Your task to perform on an android device: change the clock style Image 0: 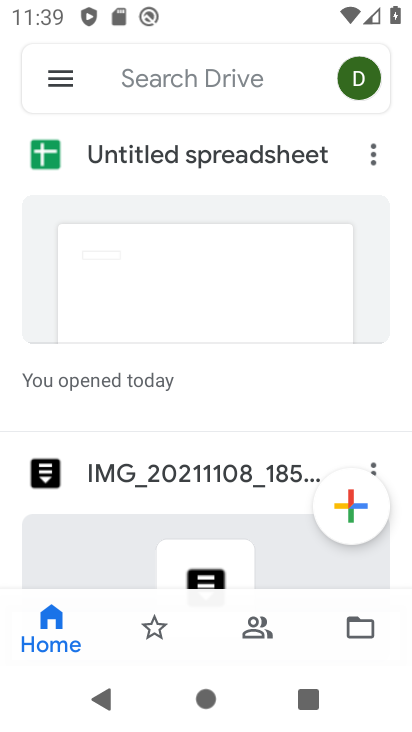
Step 0: press home button
Your task to perform on an android device: change the clock style Image 1: 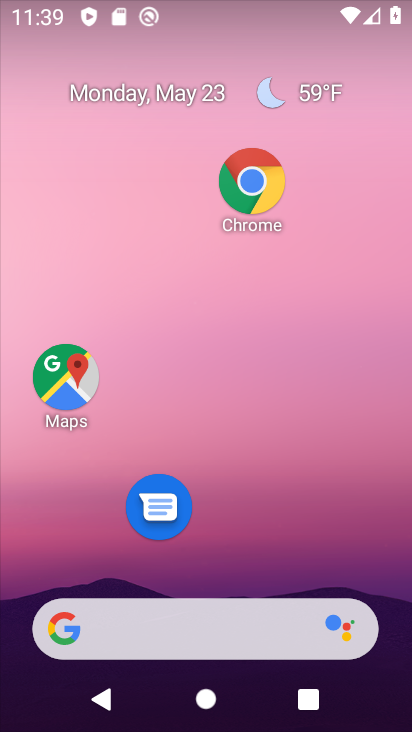
Step 1: drag from (331, 474) to (343, 130)
Your task to perform on an android device: change the clock style Image 2: 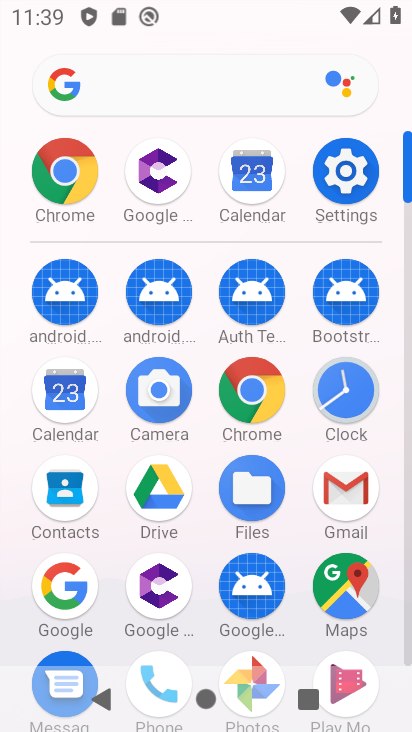
Step 2: click (350, 405)
Your task to perform on an android device: change the clock style Image 3: 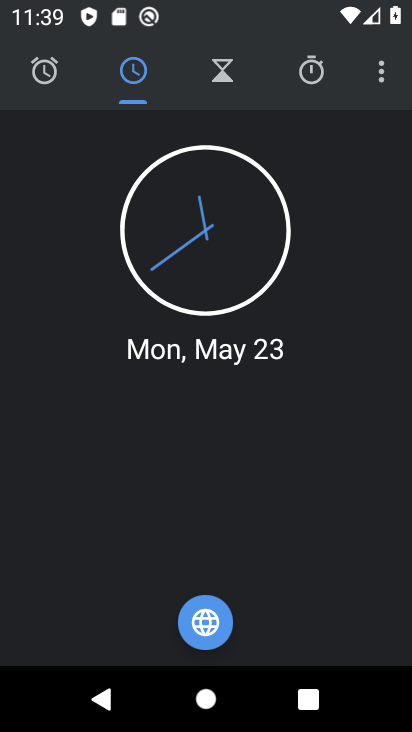
Step 3: click (366, 73)
Your task to perform on an android device: change the clock style Image 4: 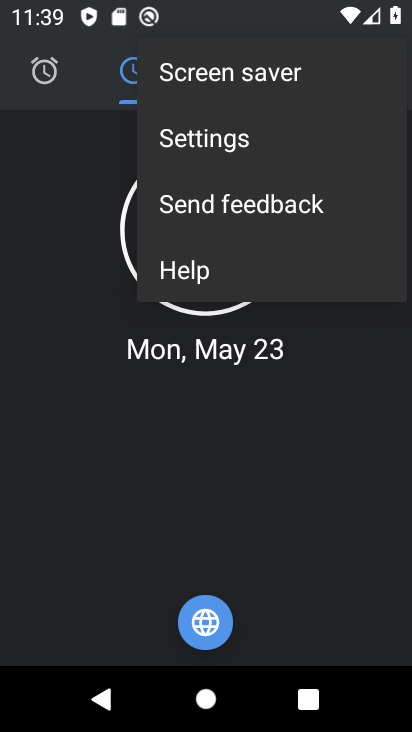
Step 4: click (262, 154)
Your task to perform on an android device: change the clock style Image 5: 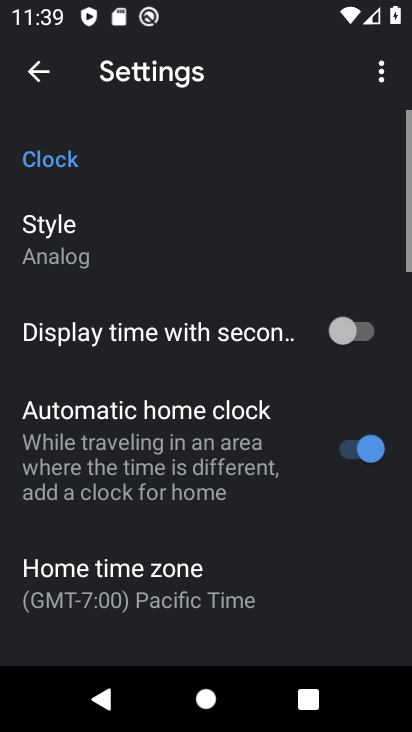
Step 5: click (65, 244)
Your task to perform on an android device: change the clock style Image 6: 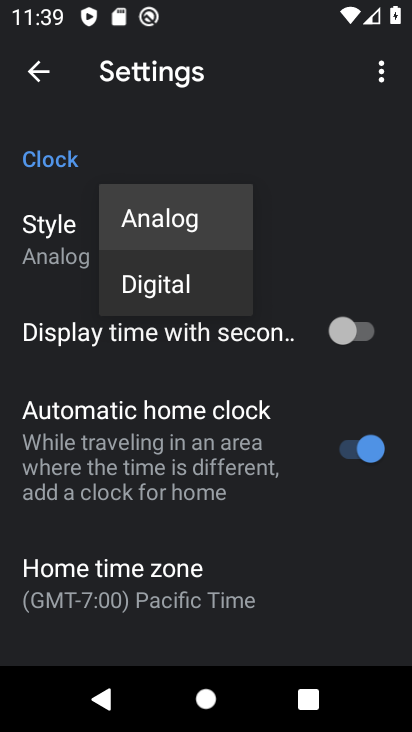
Step 6: click (152, 291)
Your task to perform on an android device: change the clock style Image 7: 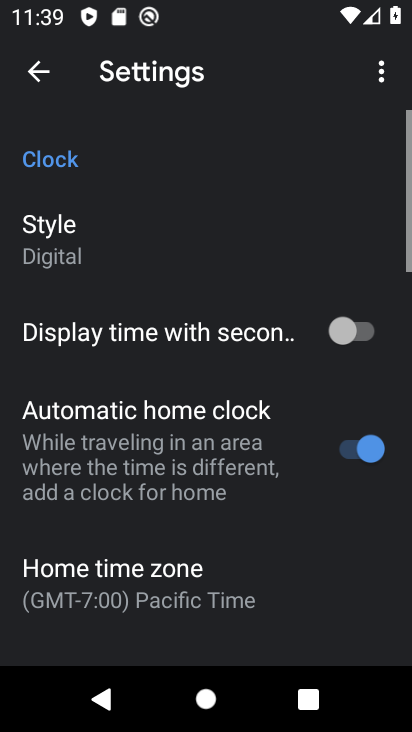
Step 7: task complete